Your task to perform on an android device: Play the last video I watched on Youtube Image 0: 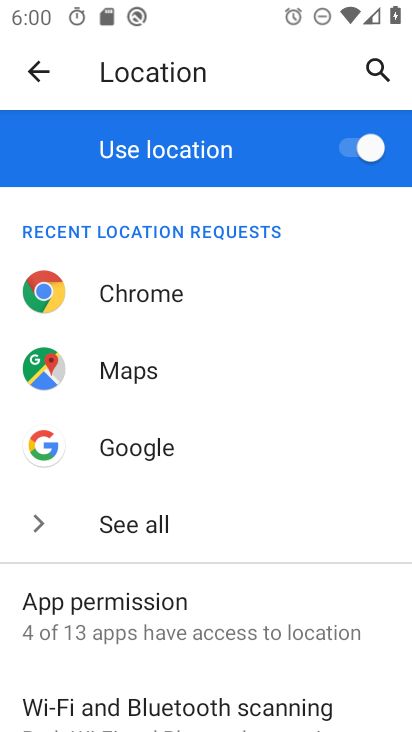
Step 0: press home button
Your task to perform on an android device: Play the last video I watched on Youtube Image 1: 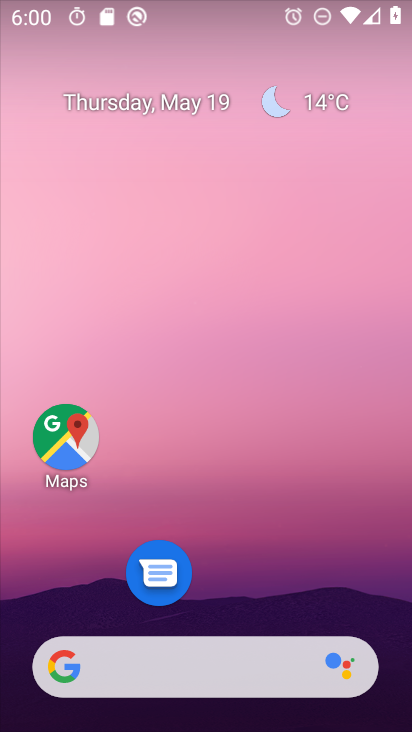
Step 1: drag from (242, 594) to (216, 123)
Your task to perform on an android device: Play the last video I watched on Youtube Image 2: 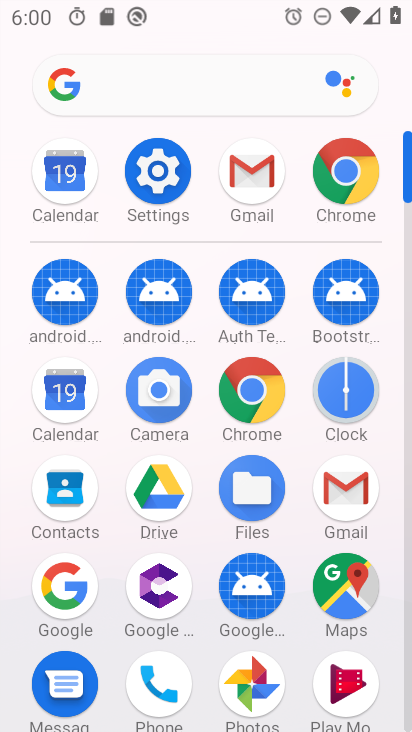
Step 2: drag from (263, 608) to (279, 181)
Your task to perform on an android device: Play the last video I watched on Youtube Image 3: 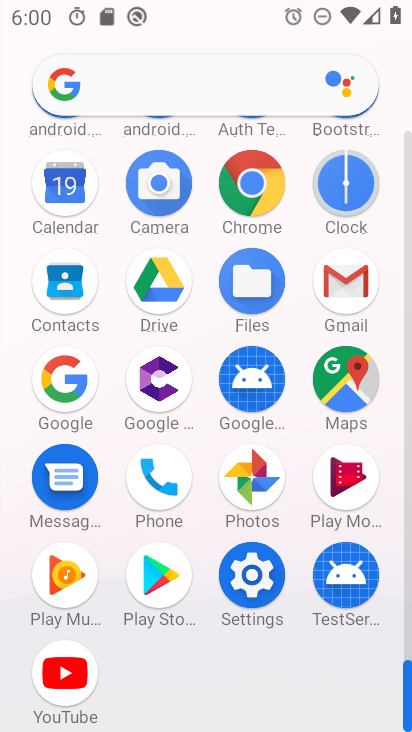
Step 3: click (65, 680)
Your task to perform on an android device: Play the last video I watched on Youtube Image 4: 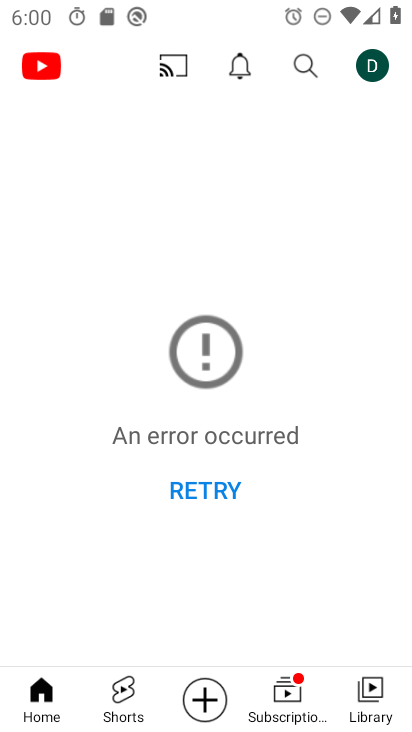
Step 4: click (370, 708)
Your task to perform on an android device: Play the last video I watched on Youtube Image 5: 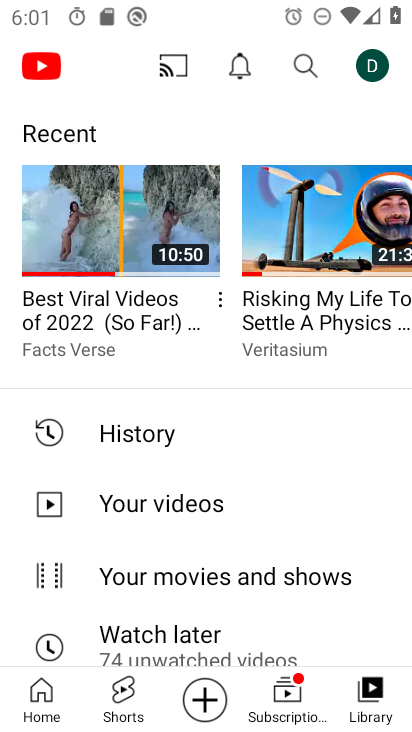
Step 5: task complete